Your task to perform on an android device: turn off data saver in the chrome app Image 0: 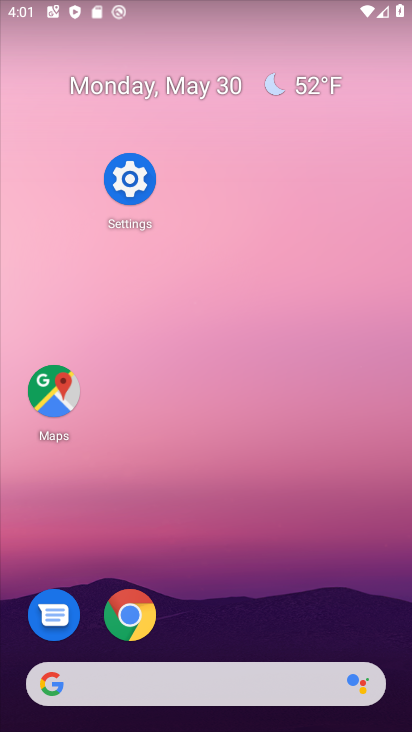
Step 0: click (139, 599)
Your task to perform on an android device: turn off data saver in the chrome app Image 1: 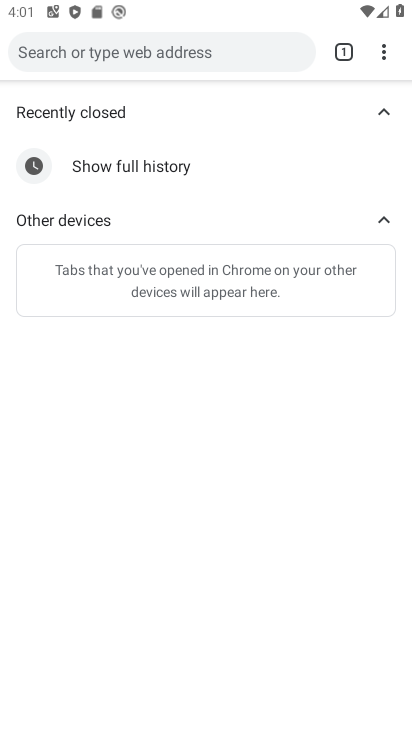
Step 1: click (385, 52)
Your task to perform on an android device: turn off data saver in the chrome app Image 2: 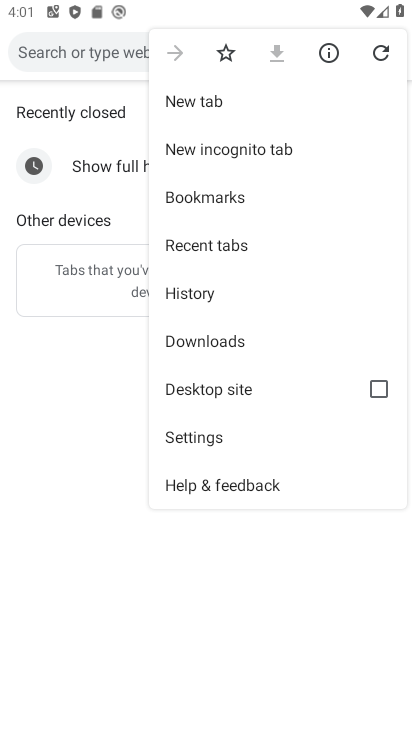
Step 2: click (211, 445)
Your task to perform on an android device: turn off data saver in the chrome app Image 3: 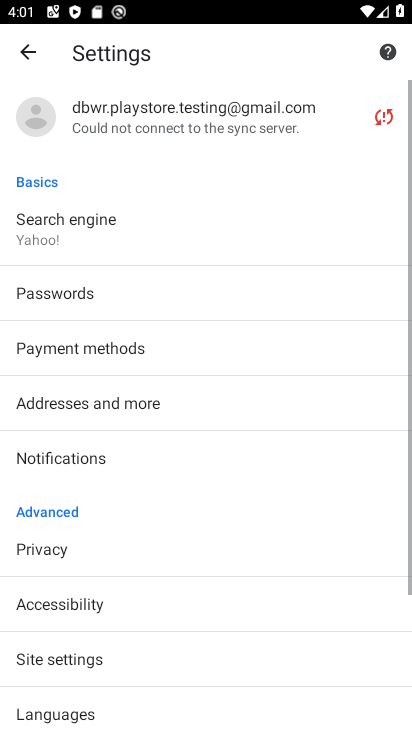
Step 3: drag from (192, 565) to (188, 172)
Your task to perform on an android device: turn off data saver in the chrome app Image 4: 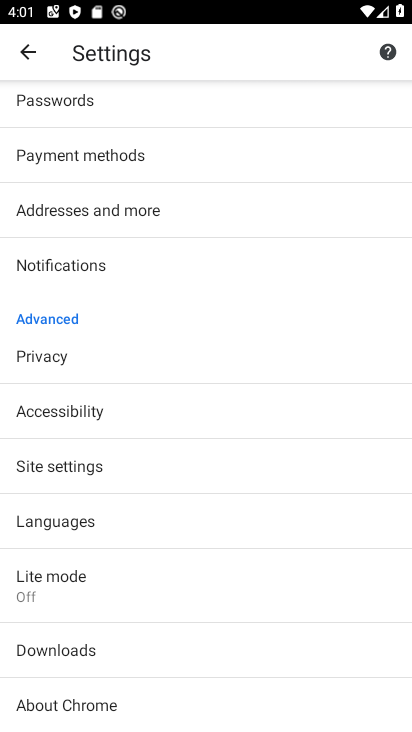
Step 4: click (86, 599)
Your task to perform on an android device: turn off data saver in the chrome app Image 5: 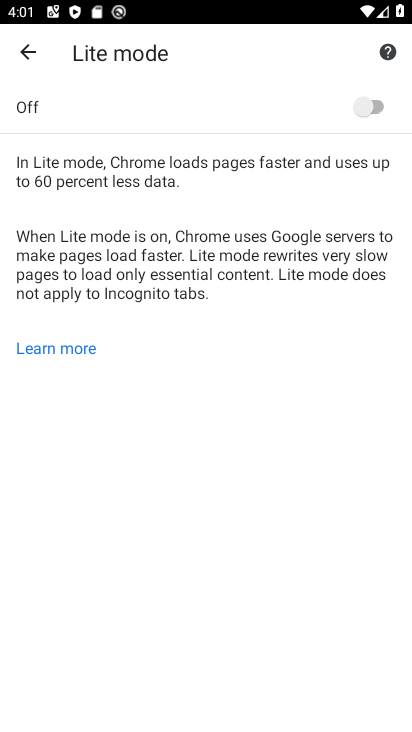
Step 5: task complete